Your task to perform on an android device: turn on translation in the chrome app Image 0: 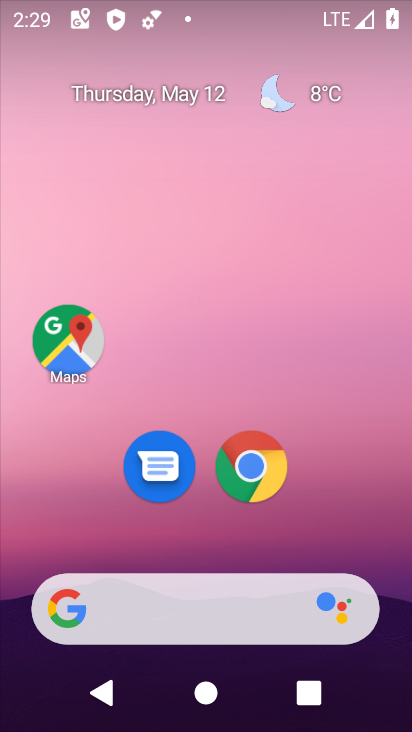
Step 0: click (257, 471)
Your task to perform on an android device: turn on translation in the chrome app Image 1: 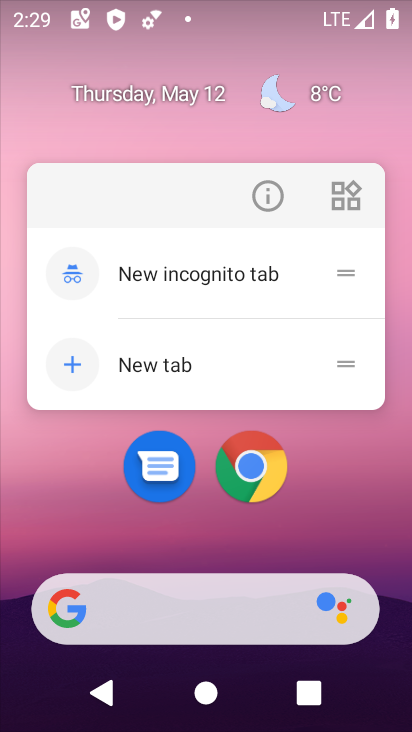
Step 1: click (257, 471)
Your task to perform on an android device: turn on translation in the chrome app Image 2: 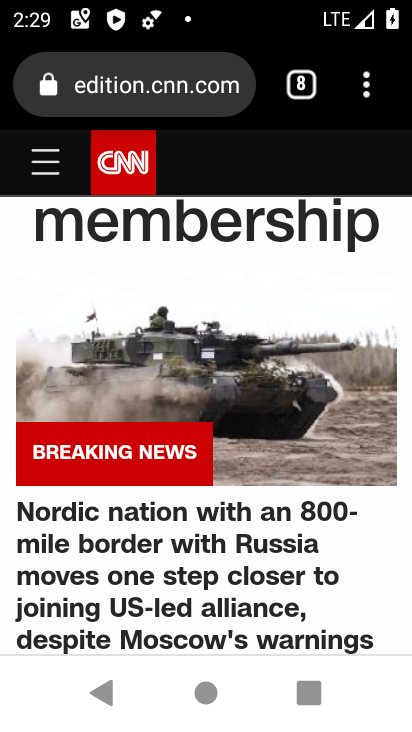
Step 2: click (362, 88)
Your task to perform on an android device: turn on translation in the chrome app Image 3: 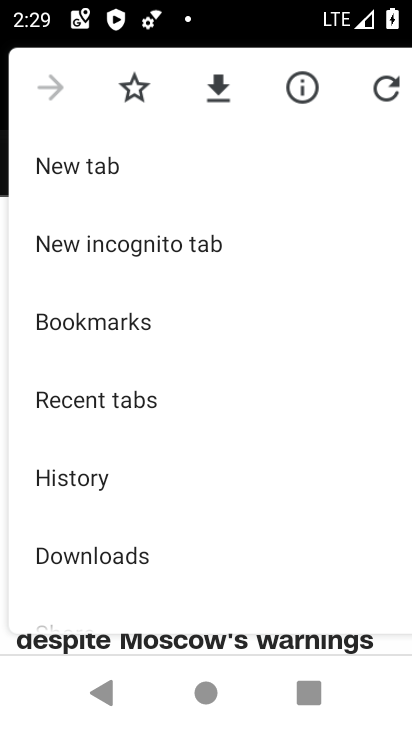
Step 3: drag from (120, 557) to (136, 120)
Your task to perform on an android device: turn on translation in the chrome app Image 4: 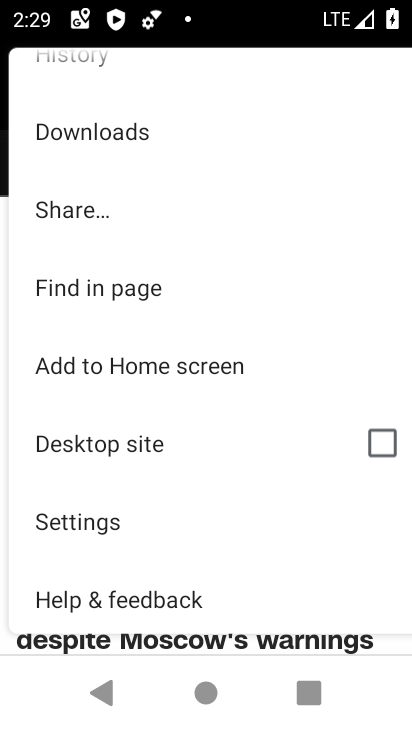
Step 4: click (98, 526)
Your task to perform on an android device: turn on translation in the chrome app Image 5: 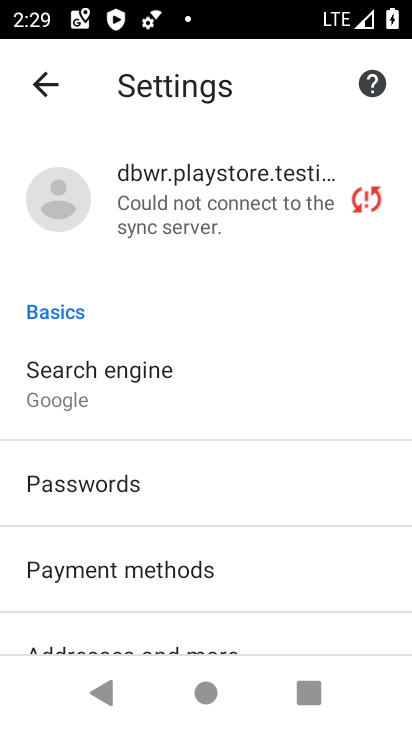
Step 5: drag from (137, 592) to (191, 273)
Your task to perform on an android device: turn on translation in the chrome app Image 6: 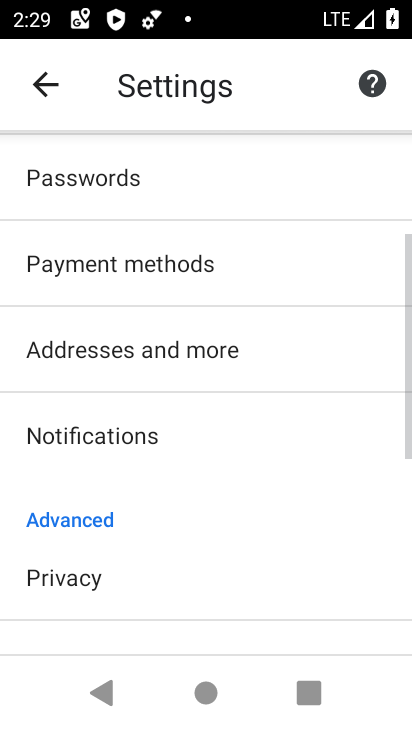
Step 6: drag from (137, 610) to (164, 267)
Your task to perform on an android device: turn on translation in the chrome app Image 7: 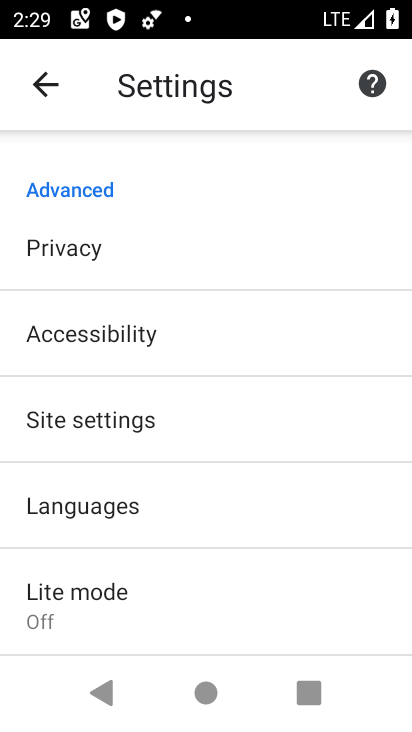
Step 7: drag from (174, 593) to (184, 239)
Your task to perform on an android device: turn on translation in the chrome app Image 8: 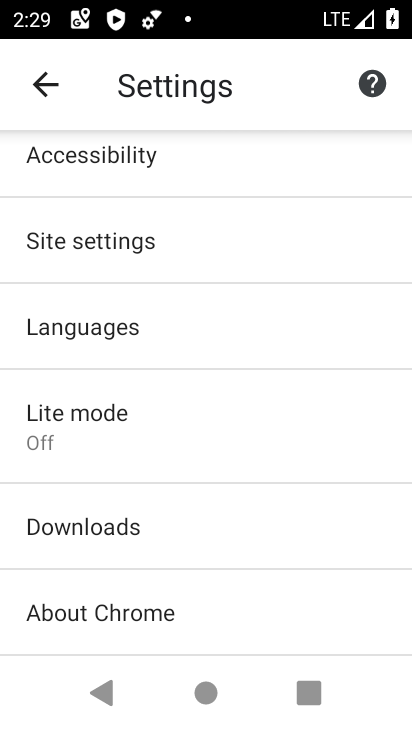
Step 8: click (93, 320)
Your task to perform on an android device: turn on translation in the chrome app Image 9: 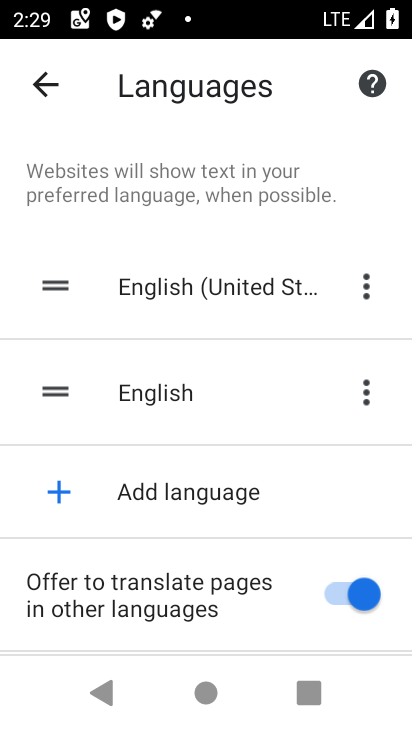
Step 9: task complete